Your task to perform on an android device: turn off location Image 0: 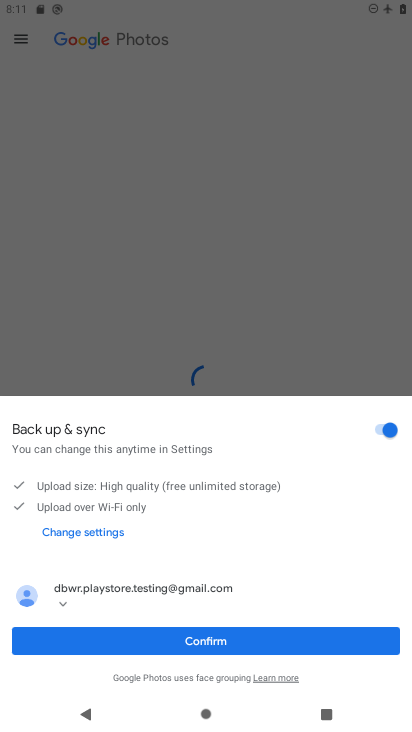
Step 0: press home button
Your task to perform on an android device: turn off location Image 1: 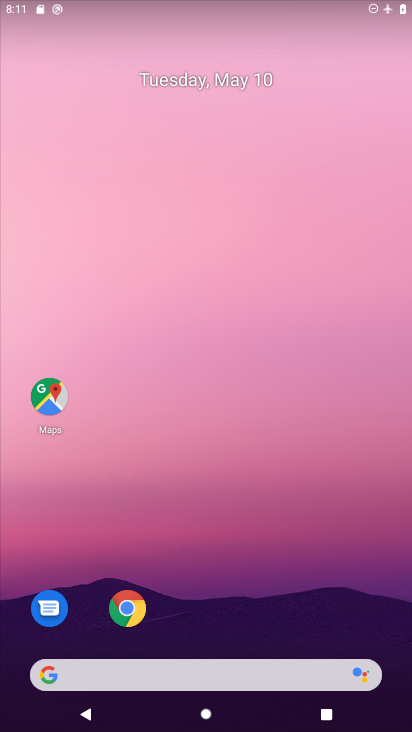
Step 1: drag from (222, 594) to (275, 246)
Your task to perform on an android device: turn off location Image 2: 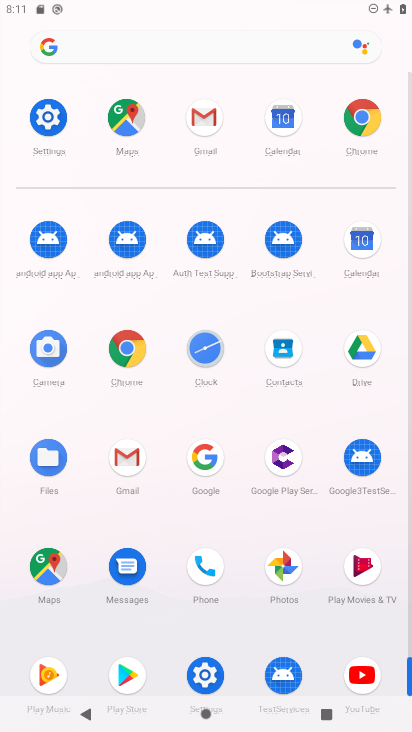
Step 2: click (48, 118)
Your task to perform on an android device: turn off location Image 3: 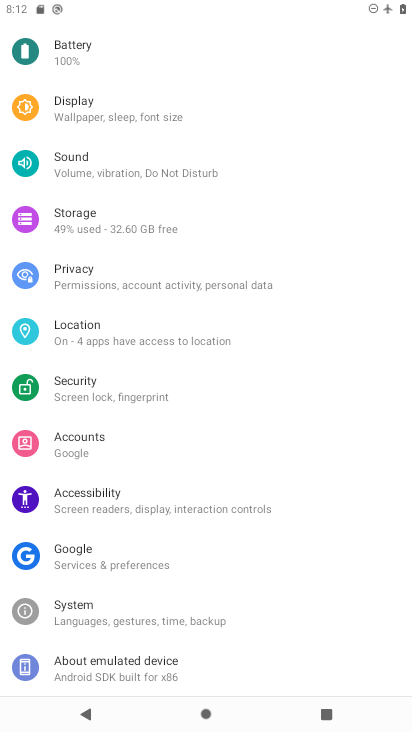
Step 3: click (101, 330)
Your task to perform on an android device: turn off location Image 4: 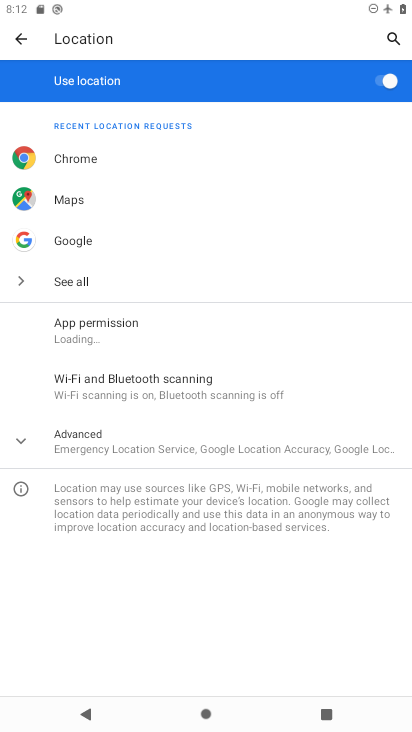
Step 4: click (380, 77)
Your task to perform on an android device: turn off location Image 5: 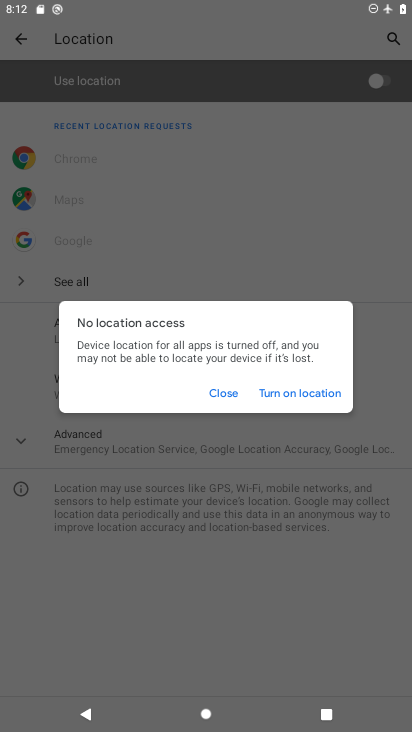
Step 5: click (221, 389)
Your task to perform on an android device: turn off location Image 6: 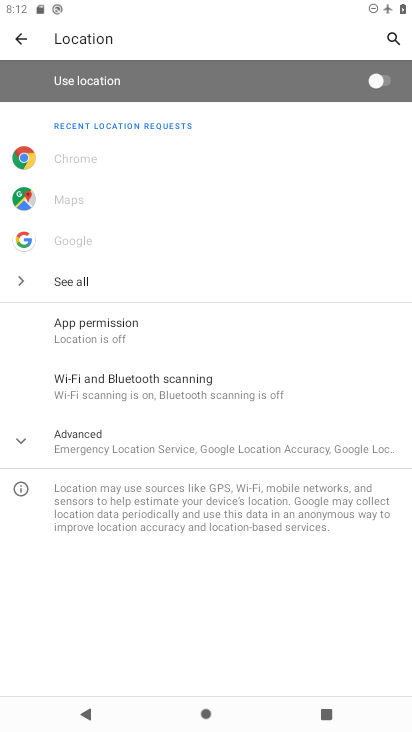
Step 6: task complete